Your task to perform on an android device: change the upload size in google photos Image 0: 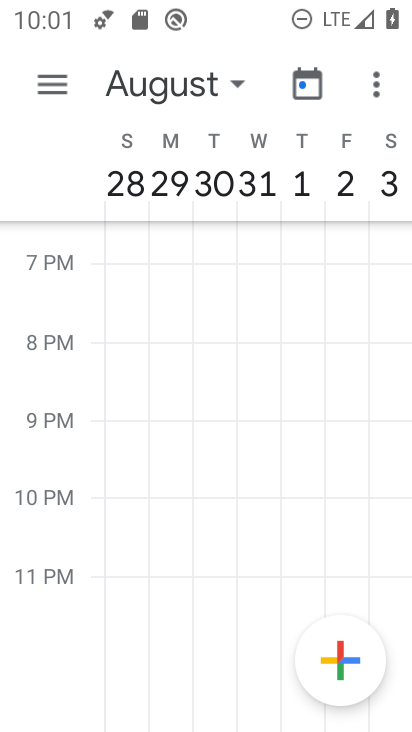
Step 0: press home button
Your task to perform on an android device: change the upload size in google photos Image 1: 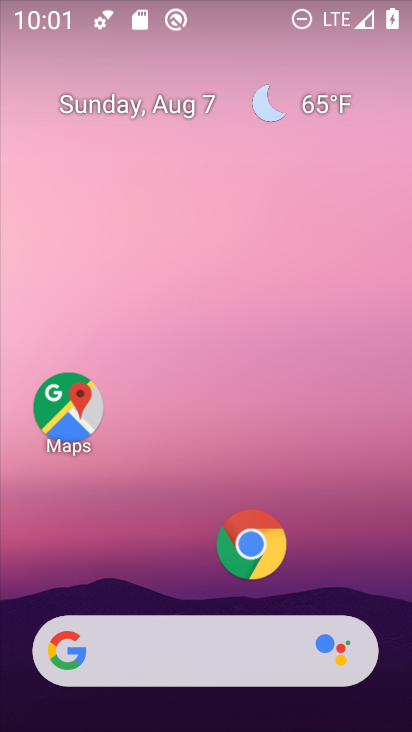
Step 1: drag from (175, 598) to (116, 551)
Your task to perform on an android device: change the upload size in google photos Image 2: 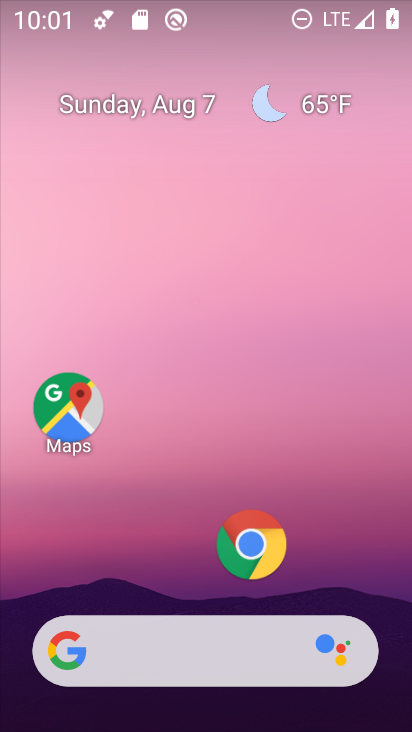
Step 2: click (260, 657)
Your task to perform on an android device: change the upload size in google photos Image 3: 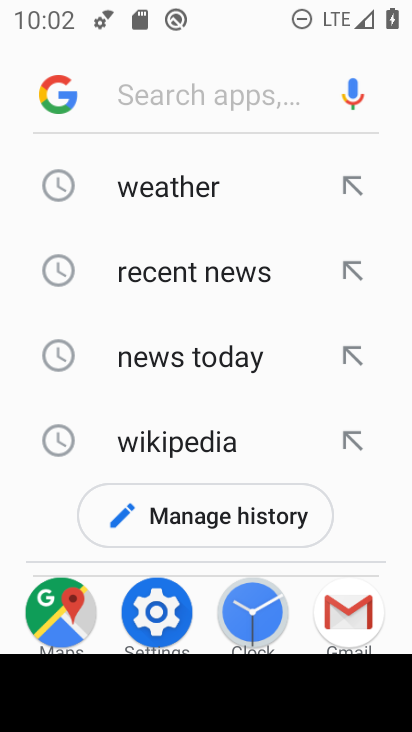
Step 3: press back button
Your task to perform on an android device: change the upload size in google photos Image 4: 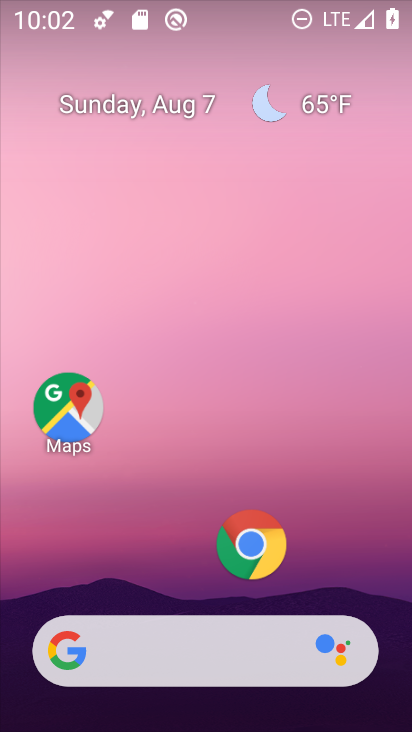
Step 4: drag from (183, 619) to (99, 39)
Your task to perform on an android device: change the upload size in google photos Image 5: 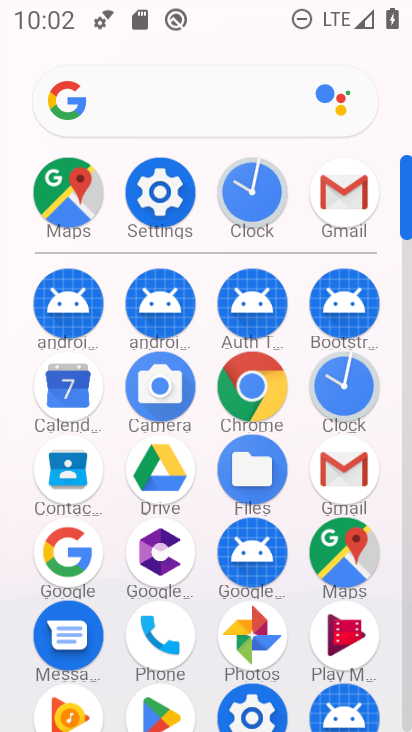
Step 5: click (251, 619)
Your task to perform on an android device: change the upload size in google photos Image 6: 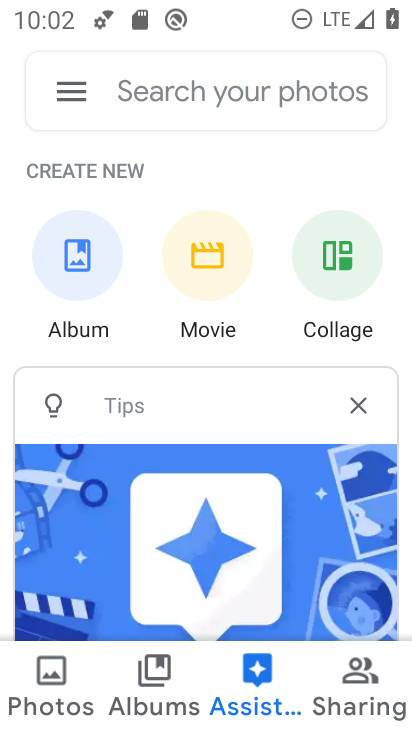
Step 6: click (70, 89)
Your task to perform on an android device: change the upload size in google photos Image 7: 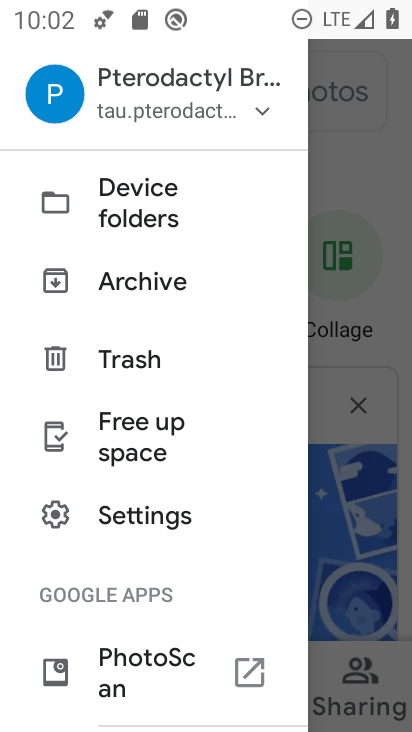
Step 7: click (138, 510)
Your task to perform on an android device: change the upload size in google photos Image 8: 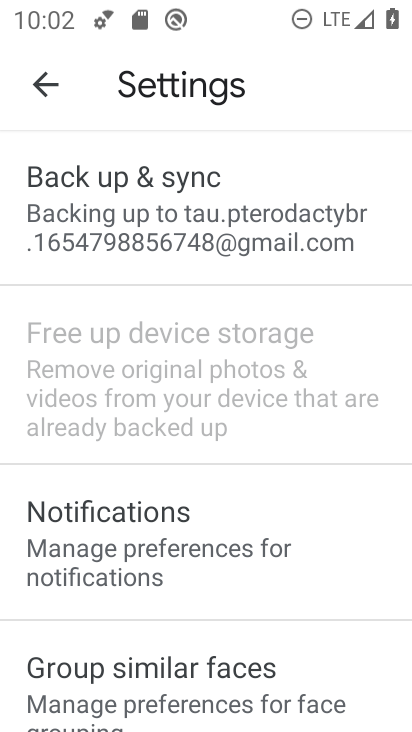
Step 8: click (205, 246)
Your task to perform on an android device: change the upload size in google photos Image 9: 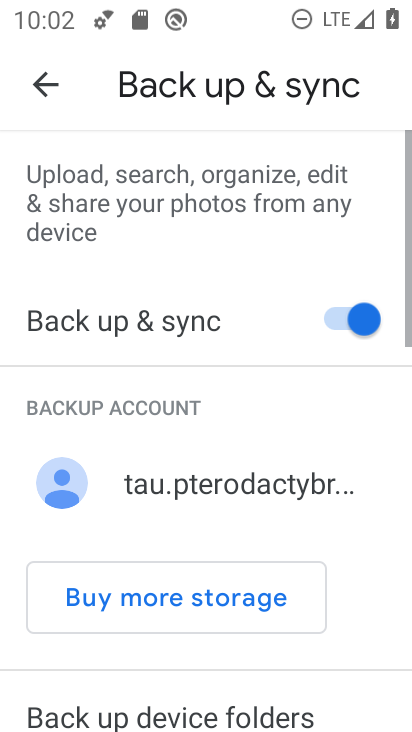
Step 9: drag from (179, 662) to (136, 103)
Your task to perform on an android device: change the upload size in google photos Image 10: 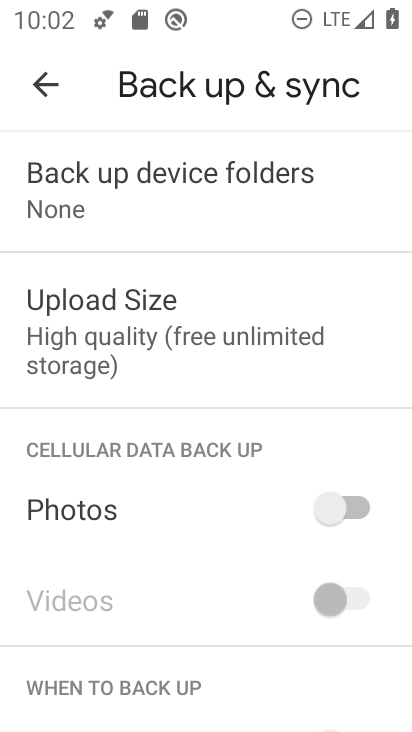
Step 10: click (112, 325)
Your task to perform on an android device: change the upload size in google photos Image 11: 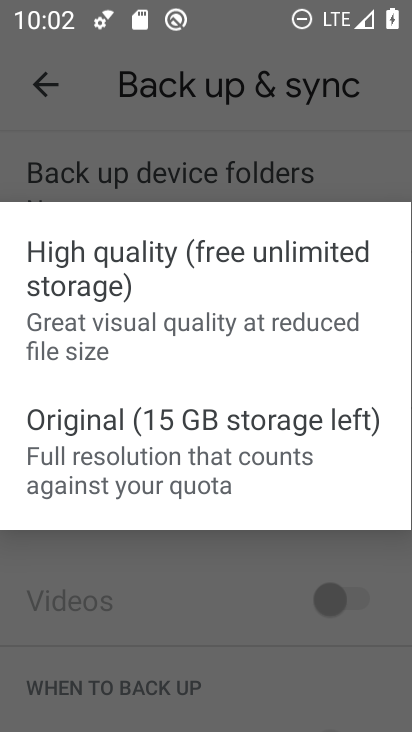
Step 11: click (81, 441)
Your task to perform on an android device: change the upload size in google photos Image 12: 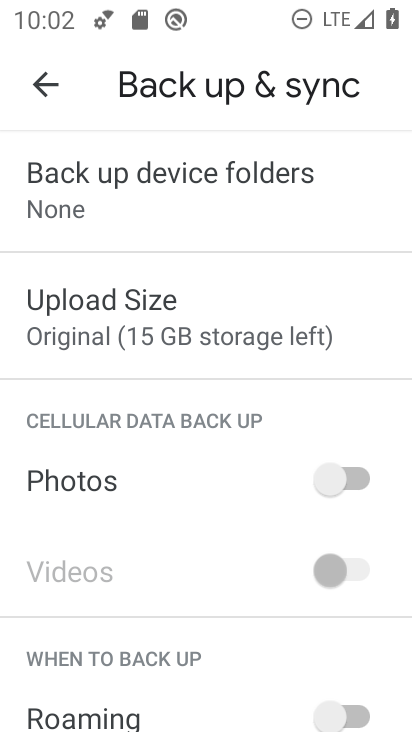
Step 12: task complete